Your task to perform on an android device: stop showing notifications on the lock screen Image 0: 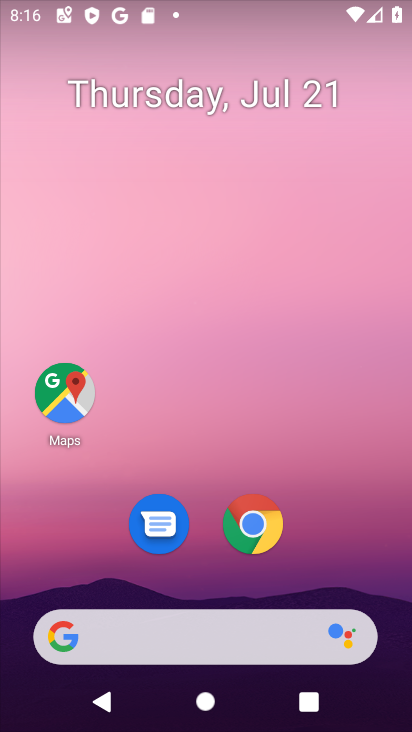
Step 0: press home button
Your task to perform on an android device: stop showing notifications on the lock screen Image 1: 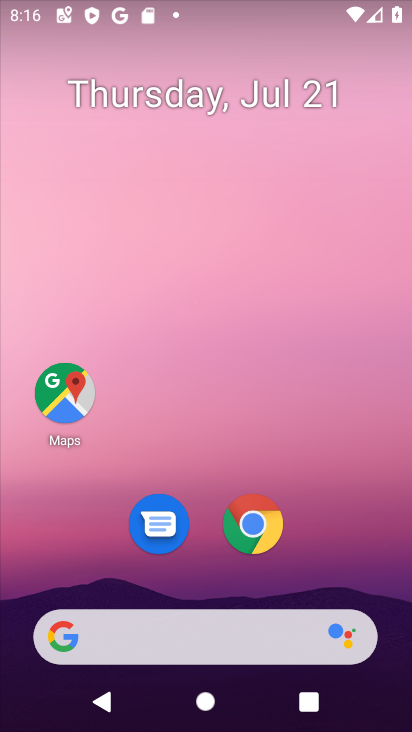
Step 1: drag from (176, 629) to (280, 162)
Your task to perform on an android device: stop showing notifications on the lock screen Image 2: 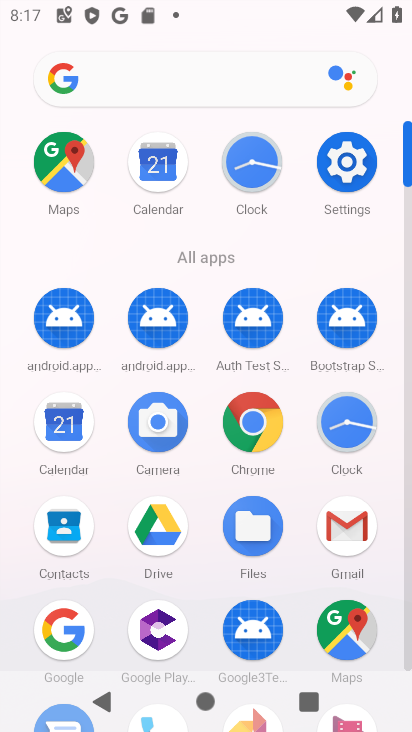
Step 2: click (344, 163)
Your task to perform on an android device: stop showing notifications on the lock screen Image 3: 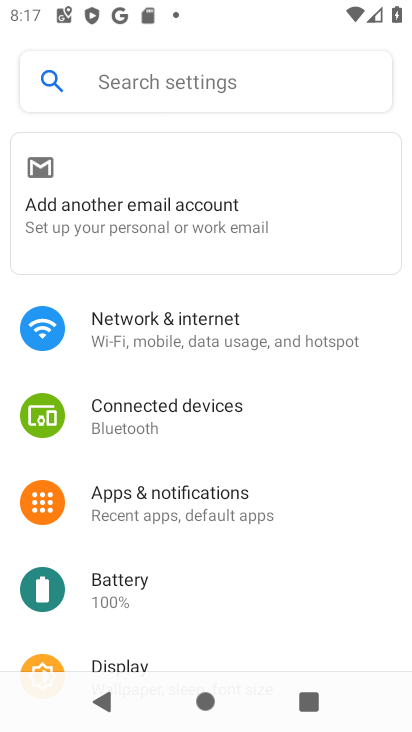
Step 3: click (189, 504)
Your task to perform on an android device: stop showing notifications on the lock screen Image 4: 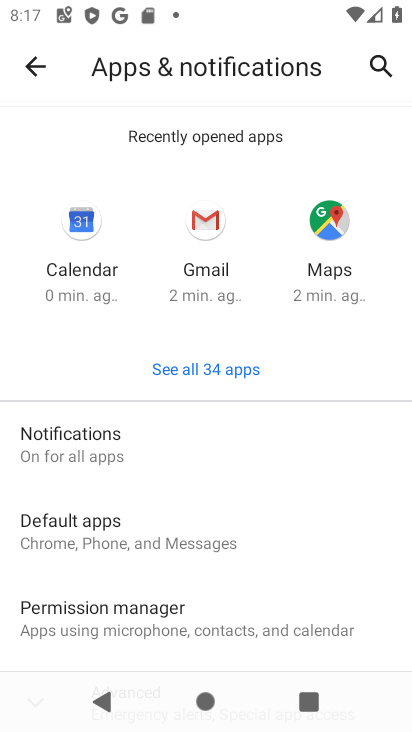
Step 4: click (102, 448)
Your task to perform on an android device: stop showing notifications on the lock screen Image 5: 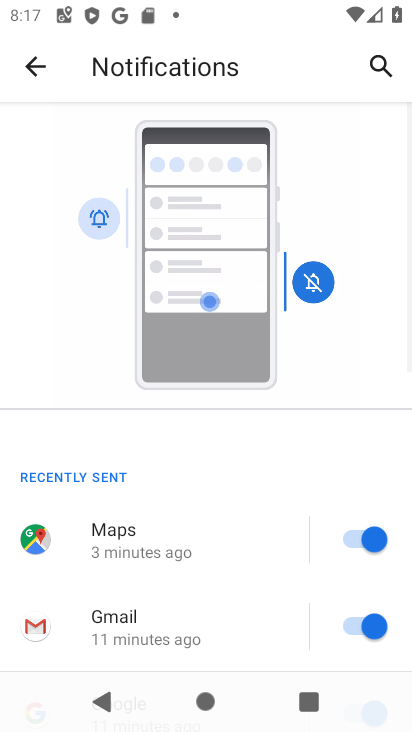
Step 5: drag from (167, 585) to (287, 14)
Your task to perform on an android device: stop showing notifications on the lock screen Image 6: 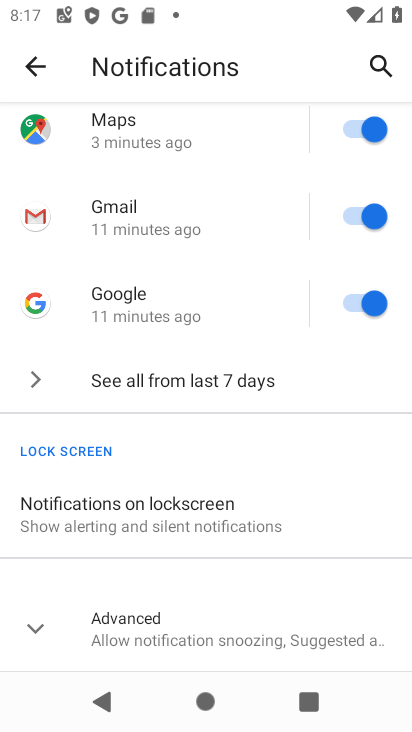
Step 6: click (199, 498)
Your task to perform on an android device: stop showing notifications on the lock screen Image 7: 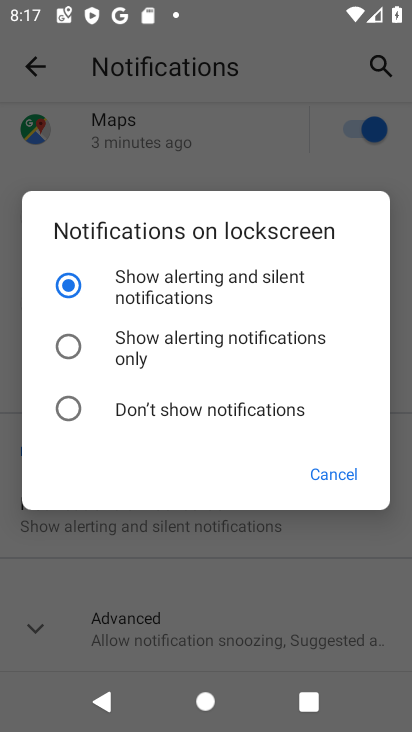
Step 7: click (65, 410)
Your task to perform on an android device: stop showing notifications on the lock screen Image 8: 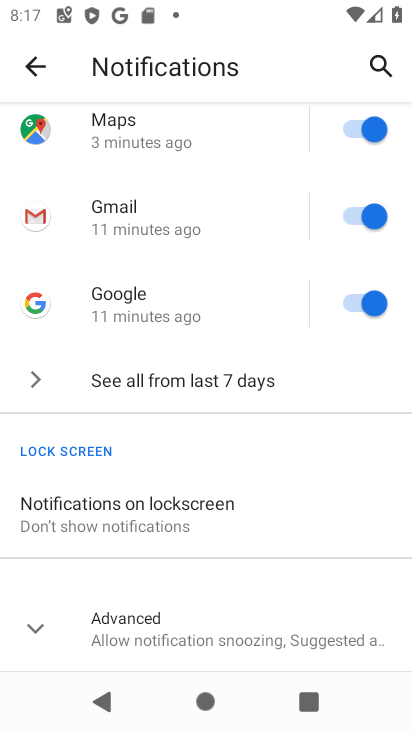
Step 8: task complete